Your task to perform on an android device: turn on the 12-hour format for clock Image 0: 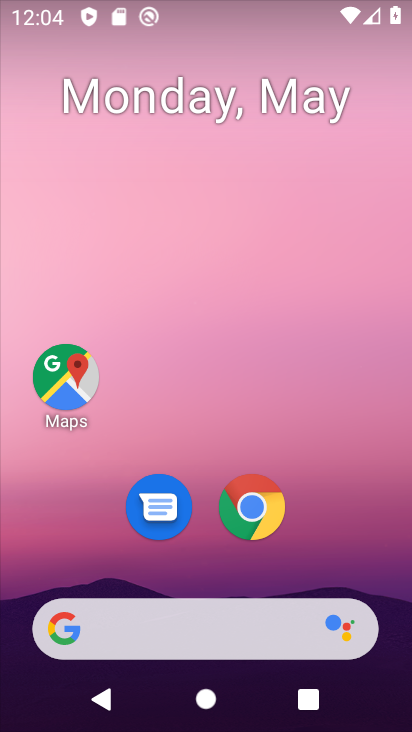
Step 0: drag from (226, 730) to (226, 208)
Your task to perform on an android device: turn on the 12-hour format for clock Image 1: 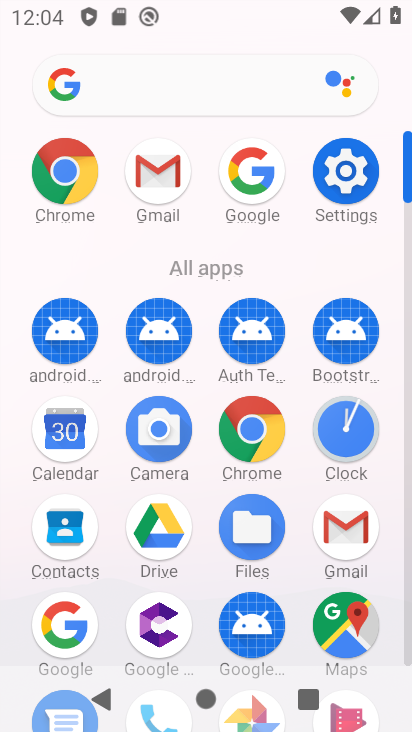
Step 1: click (340, 435)
Your task to perform on an android device: turn on the 12-hour format for clock Image 2: 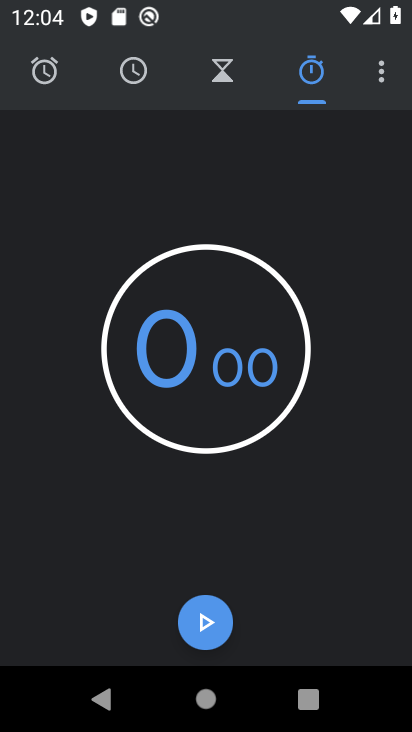
Step 2: click (384, 77)
Your task to perform on an android device: turn on the 12-hour format for clock Image 3: 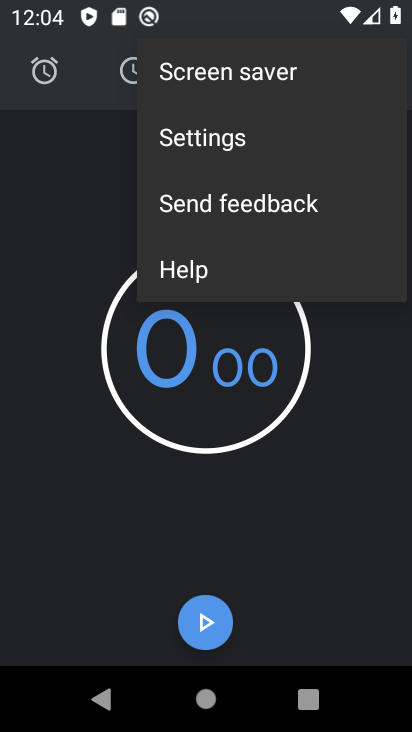
Step 3: click (216, 138)
Your task to perform on an android device: turn on the 12-hour format for clock Image 4: 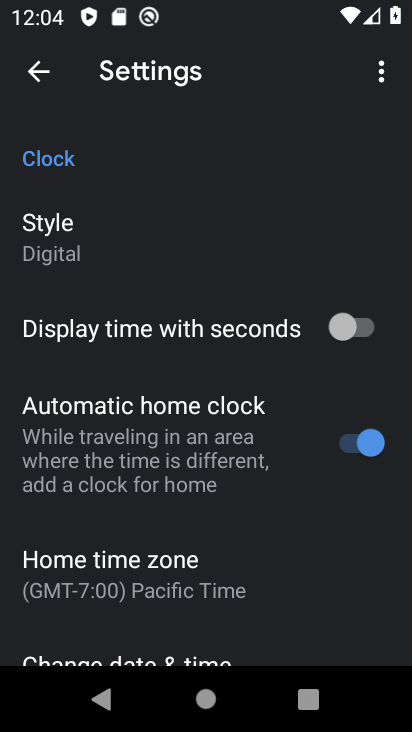
Step 4: drag from (74, 629) to (87, 194)
Your task to perform on an android device: turn on the 12-hour format for clock Image 5: 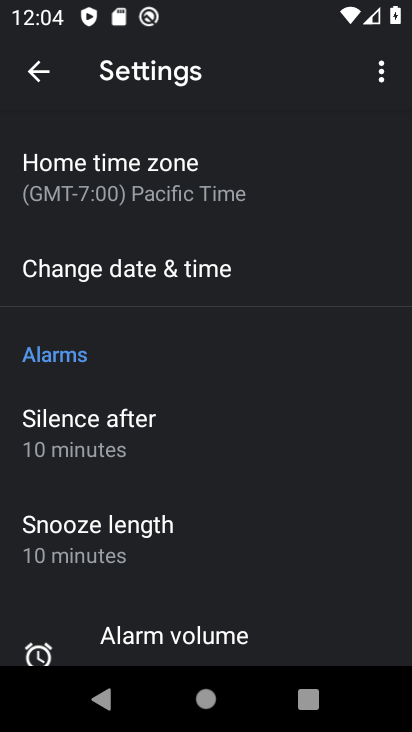
Step 5: drag from (145, 478) to (143, 244)
Your task to perform on an android device: turn on the 12-hour format for clock Image 6: 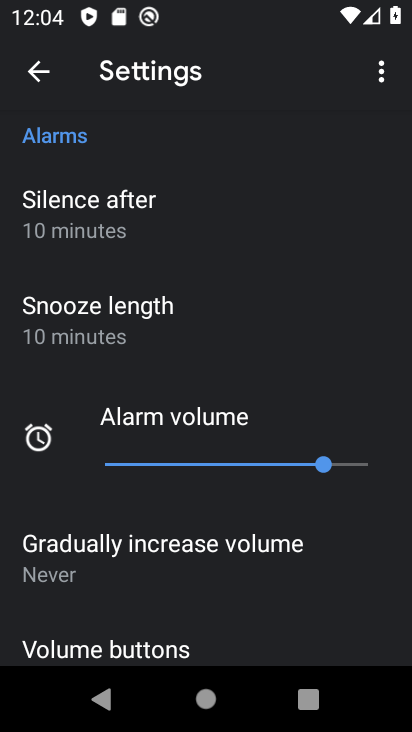
Step 6: drag from (170, 169) to (170, 526)
Your task to perform on an android device: turn on the 12-hour format for clock Image 7: 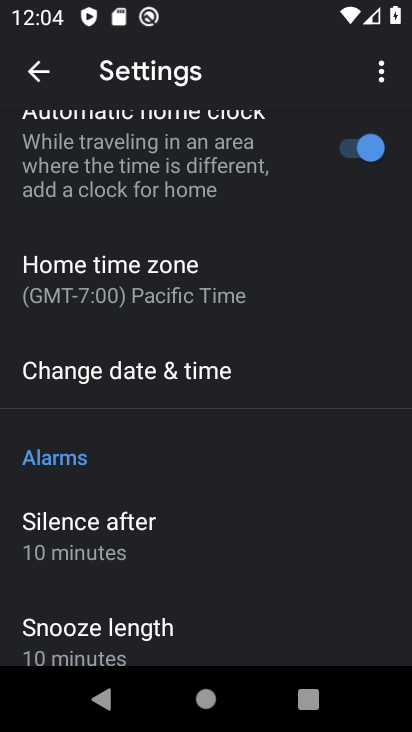
Step 7: drag from (207, 166) to (203, 359)
Your task to perform on an android device: turn on the 12-hour format for clock Image 8: 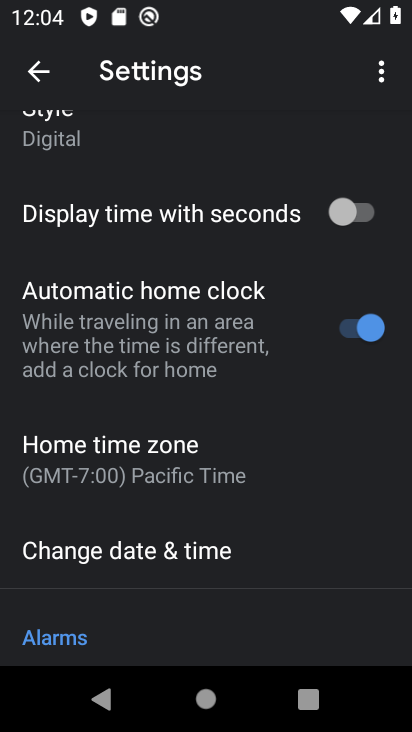
Step 8: click (145, 548)
Your task to perform on an android device: turn on the 12-hour format for clock Image 9: 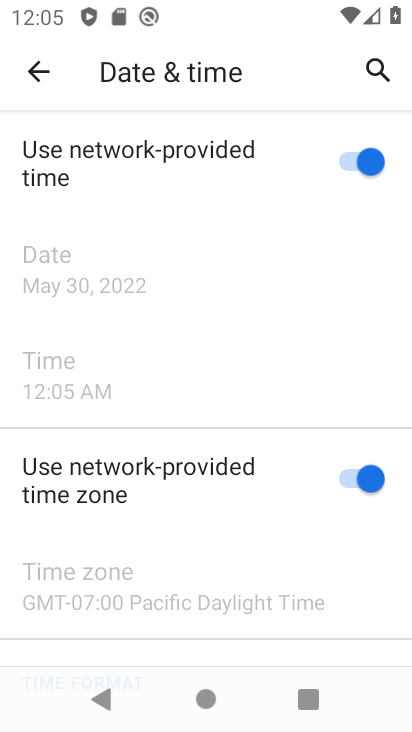
Step 9: task complete